Your task to perform on an android device: What's the weather? Image 0: 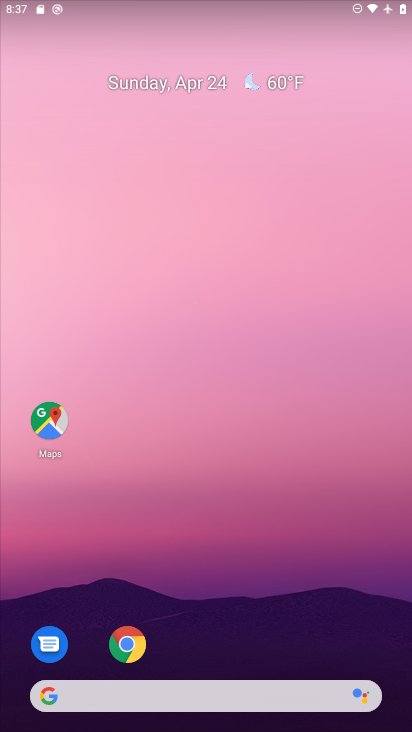
Step 0: click (283, 77)
Your task to perform on an android device: What's the weather? Image 1: 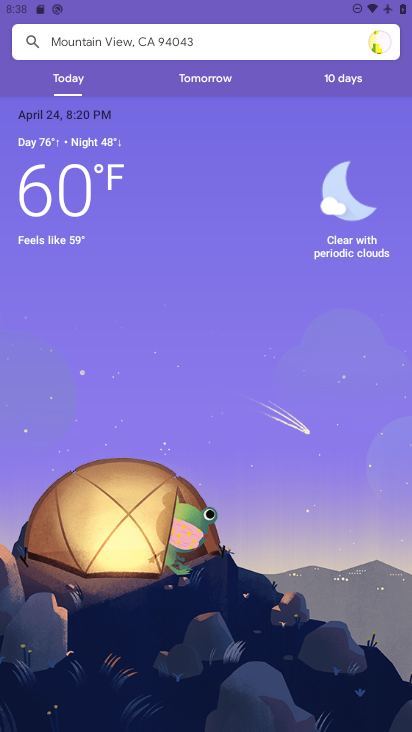
Step 1: task complete